Your task to perform on an android device: open app "Yahoo Mail" (install if not already installed) Image 0: 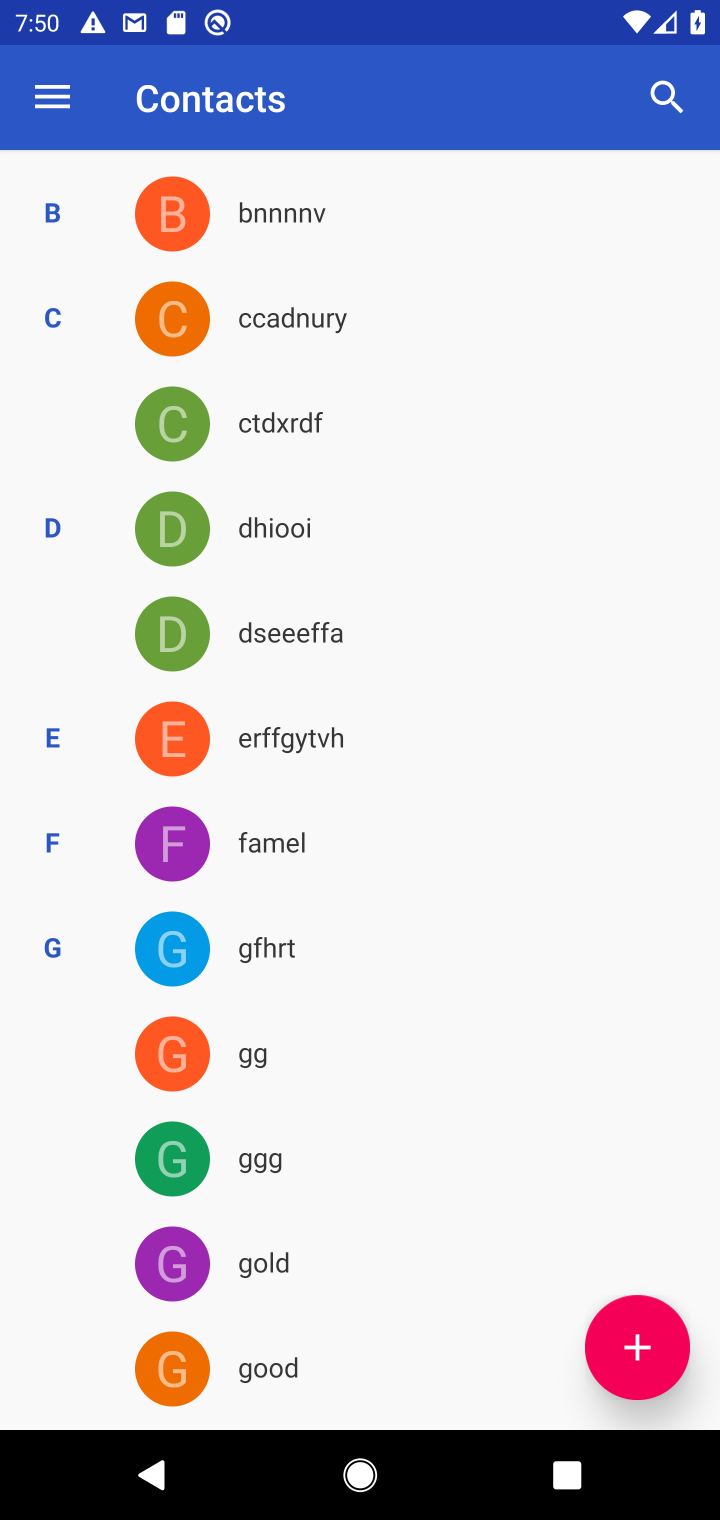
Step 0: press home button
Your task to perform on an android device: open app "Yahoo Mail" (install if not already installed) Image 1: 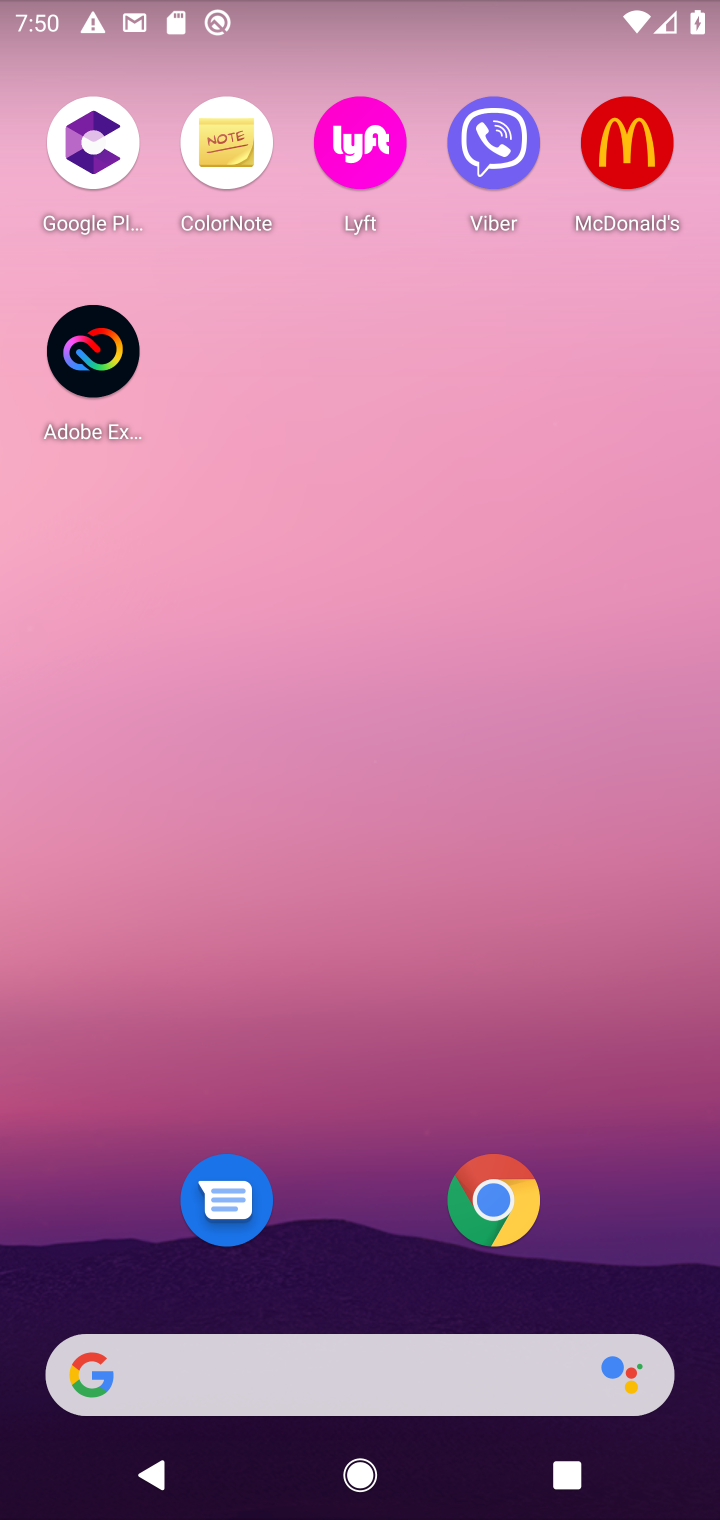
Step 1: drag from (344, 1024) to (376, 314)
Your task to perform on an android device: open app "Yahoo Mail" (install if not already installed) Image 2: 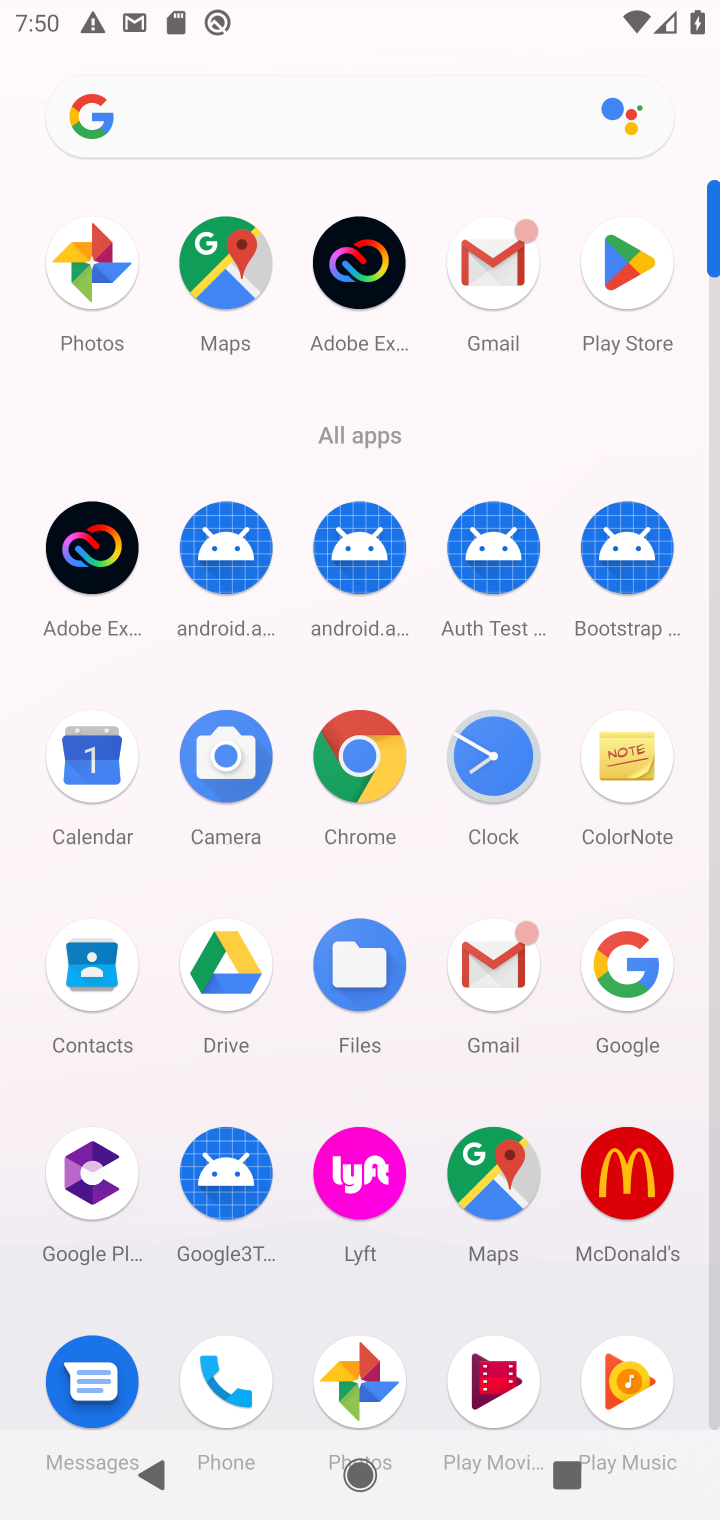
Step 2: click (623, 241)
Your task to perform on an android device: open app "Yahoo Mail" (install if not already installed) Image 3: 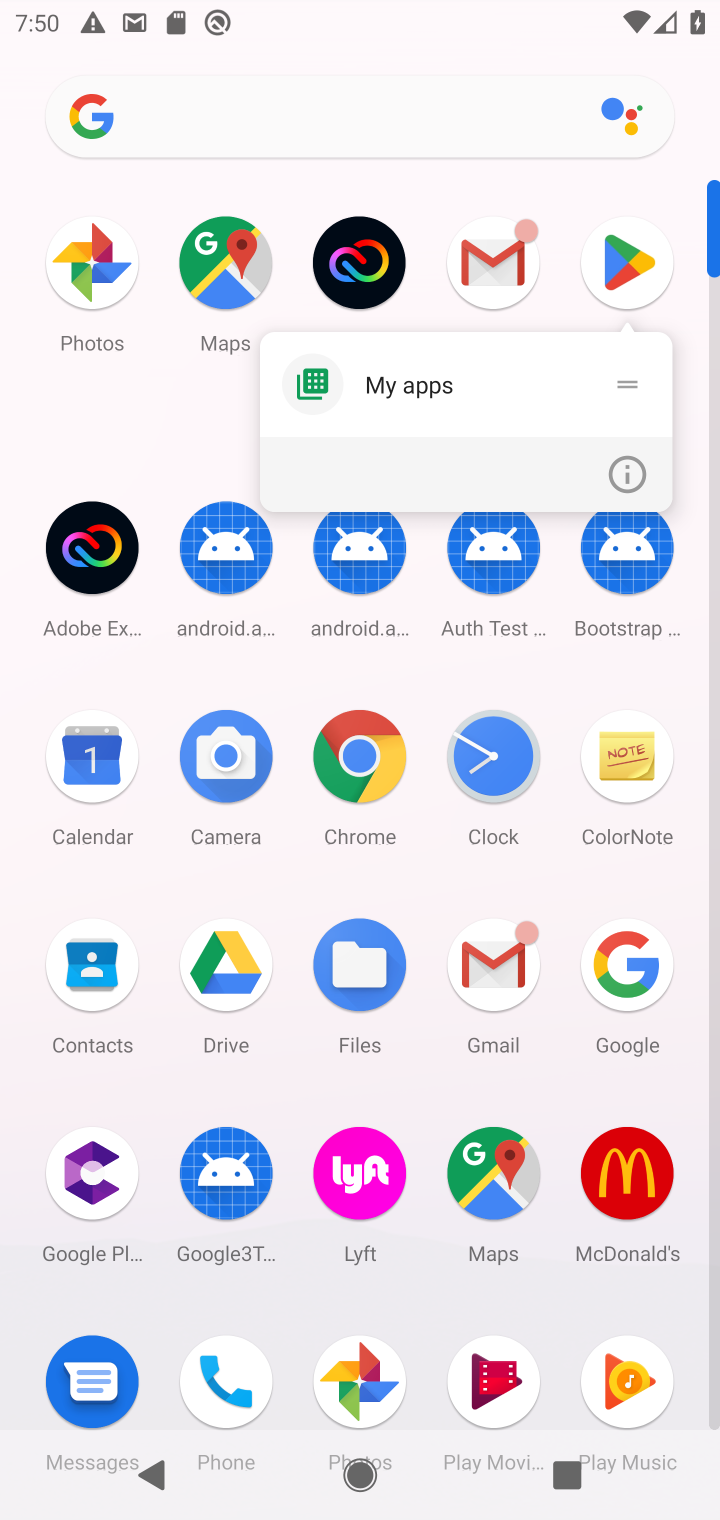
Step 3: click (639, 291)
Your task to perform on an android device: open app "Yahoo Mail" (install if not already installed) Image 4: 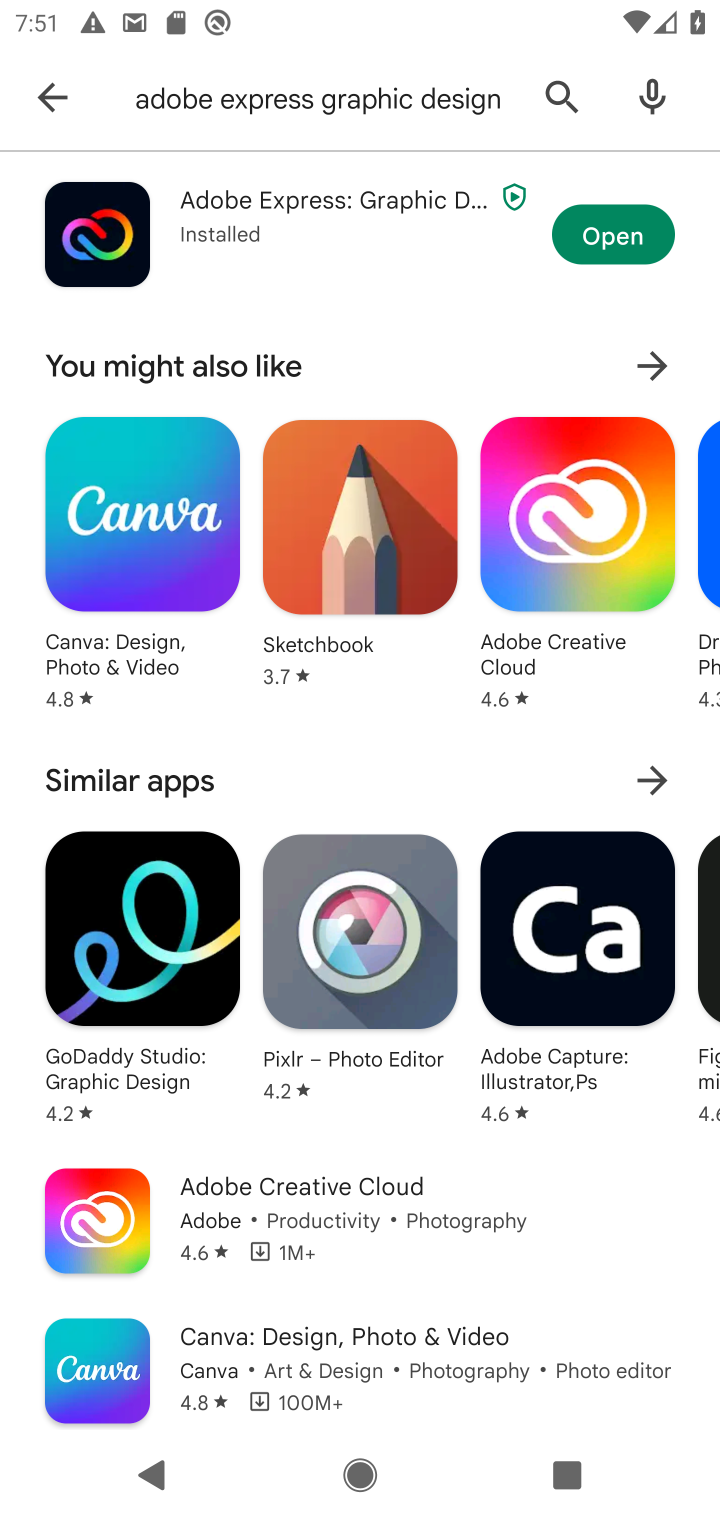
Step 4: click (44, 103)
Your task to perform on an android device: open app "Yahoo Mail" (install if not already installed) Image 5: 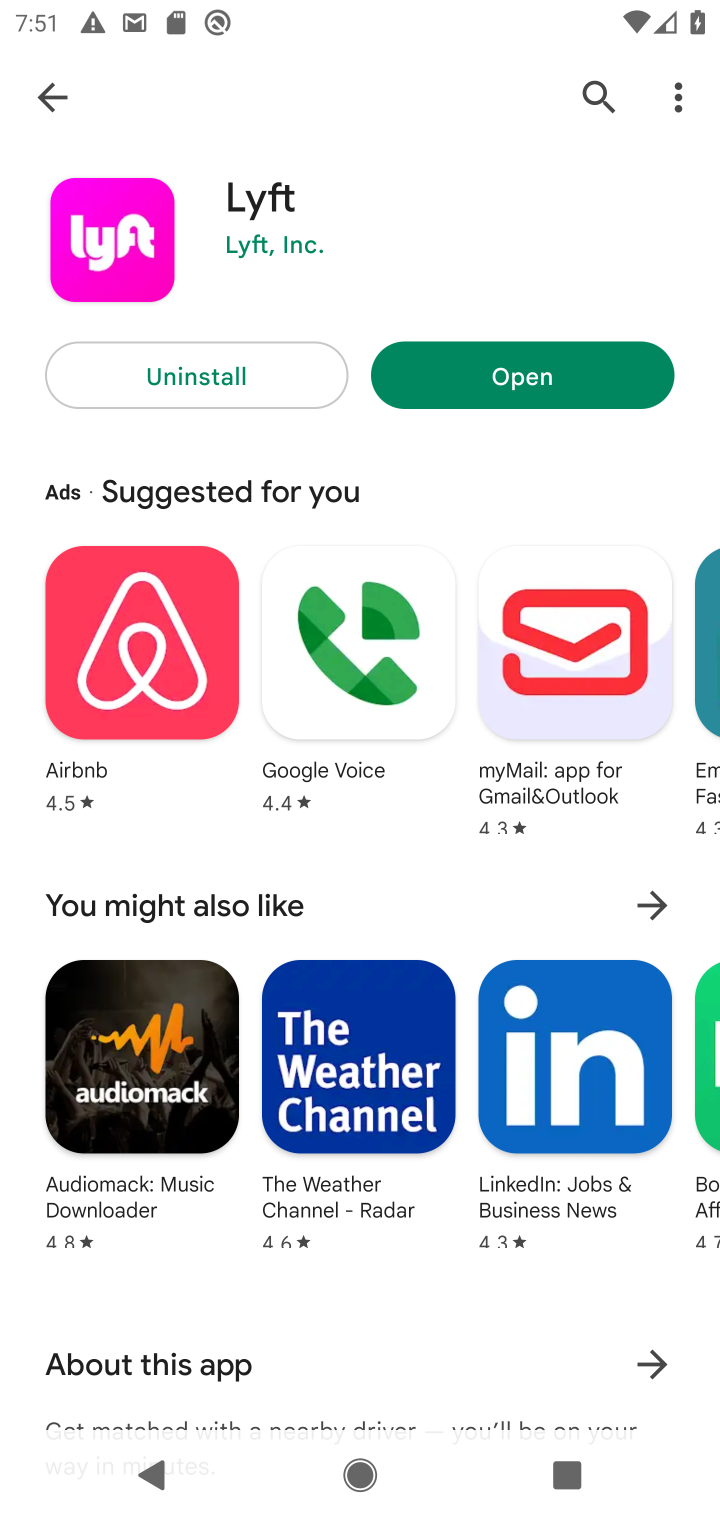
Step 5: click (57, 92)
Your task to perform on an android device: open app "Yahoo Mail" (install if not already installed) Image 6: 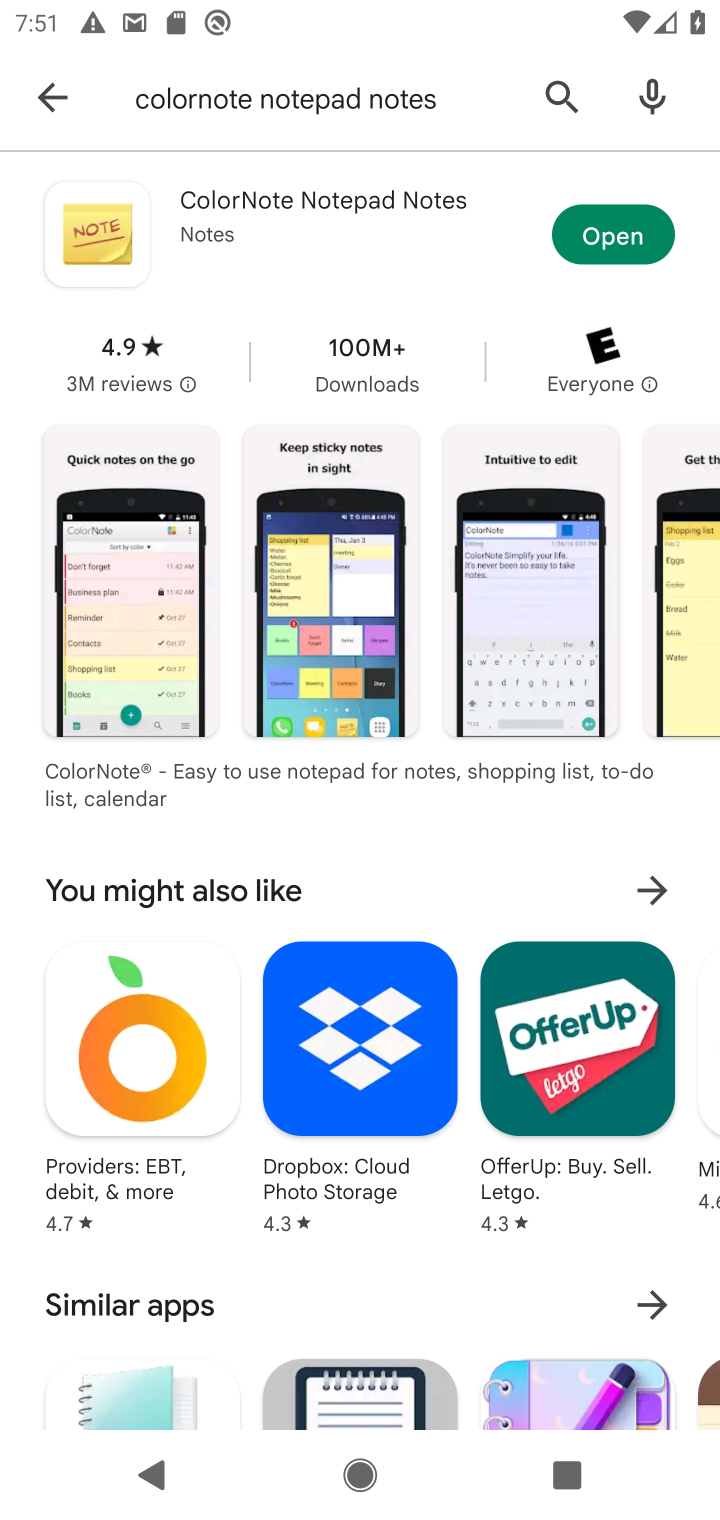
Step 6: click (555, 103)
Your task to perform on an android device: open app "Yahoo Mail" (install if not already installed) Image 7: 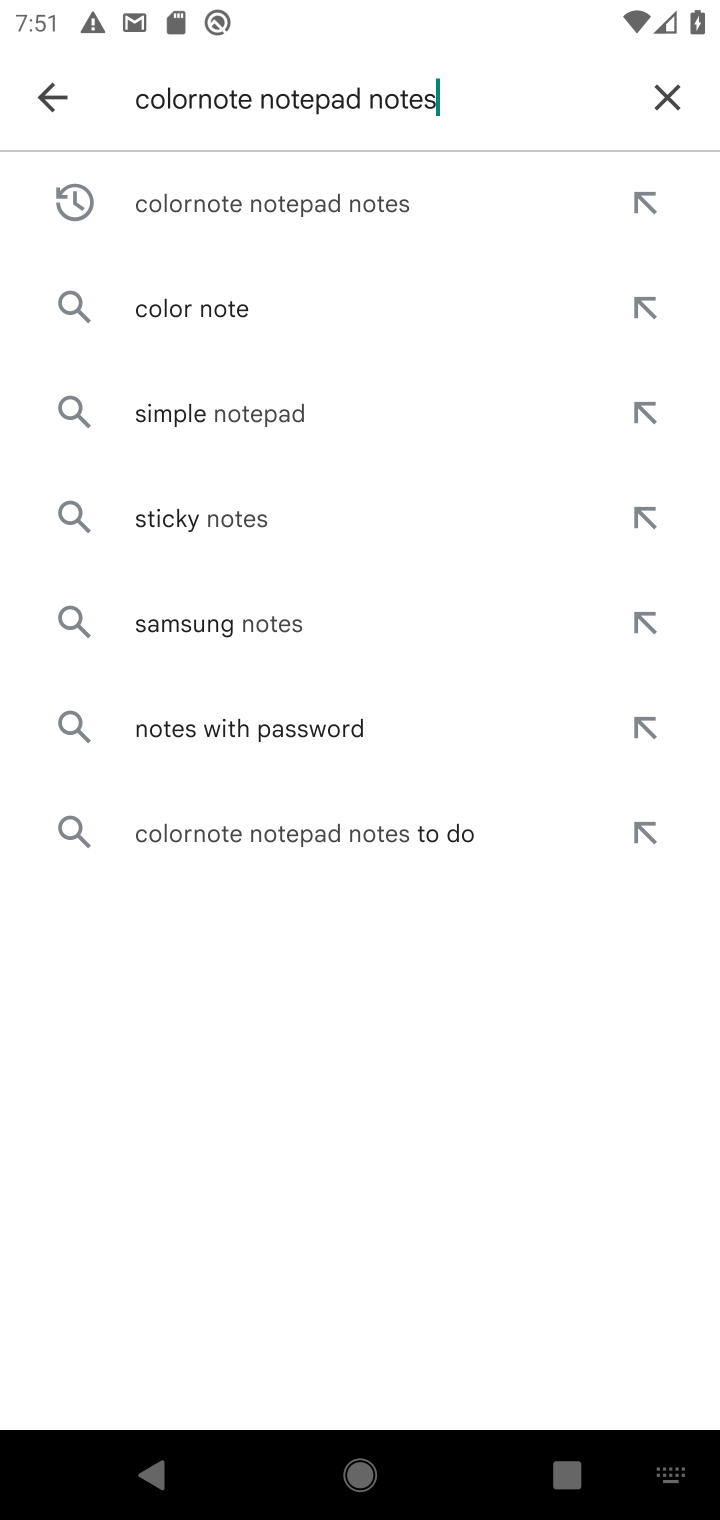
Step 7: click (655, 98)
Your task to perform on an android device: open app "Yahoo Mail" (install if not already installed) Image 8: 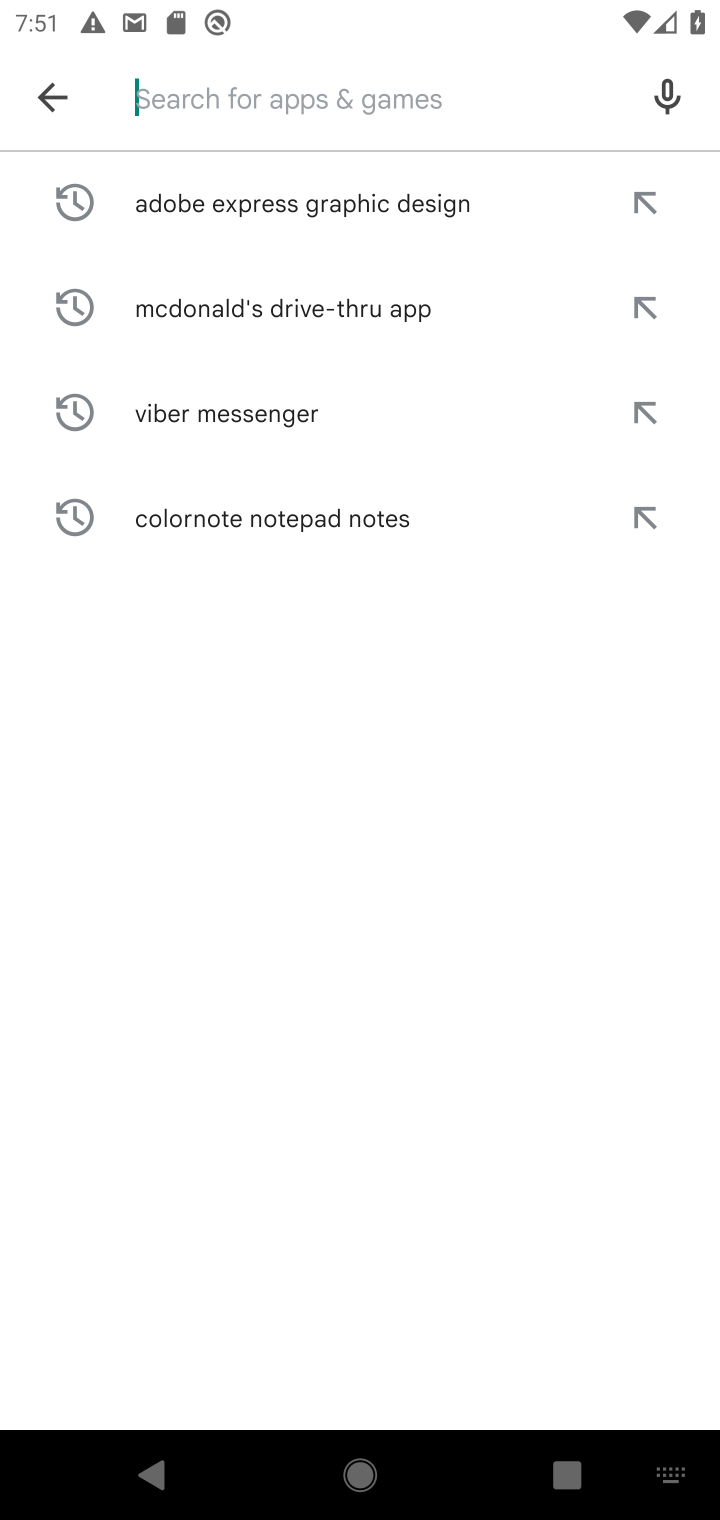
Step 8: type "Yahoo Mail"
Your task to perform on an android device: open app "Yahoo Mail" (install if not already installed) Image 9: 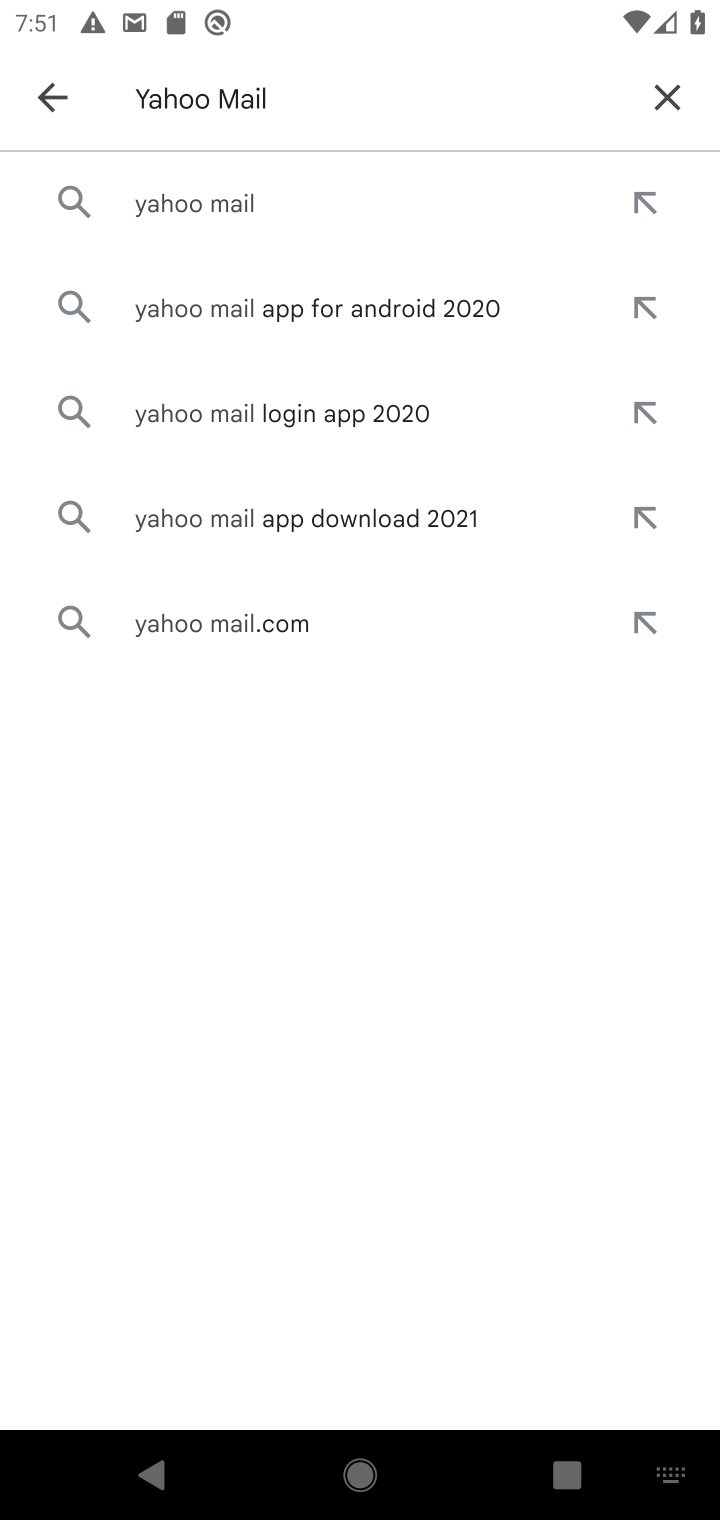
Step 9: click (168, 199)
Your task to perform on an android device: open app "Yahoo Mail" (install if not already installed) Image 10: 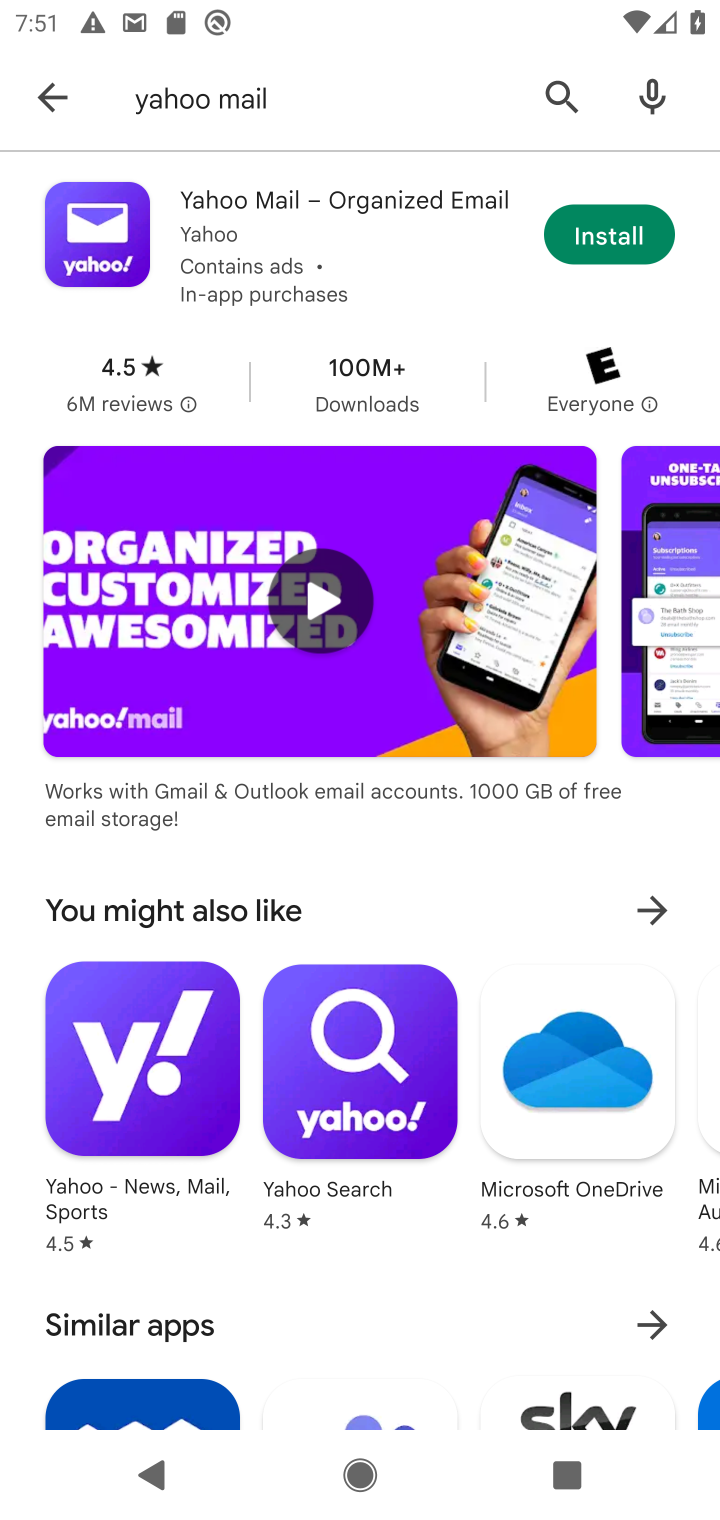
Step 10: click (638, 242)
Your task to perform on an android device: open app "Yahoo Mail" (install if not already installed) Image 11: 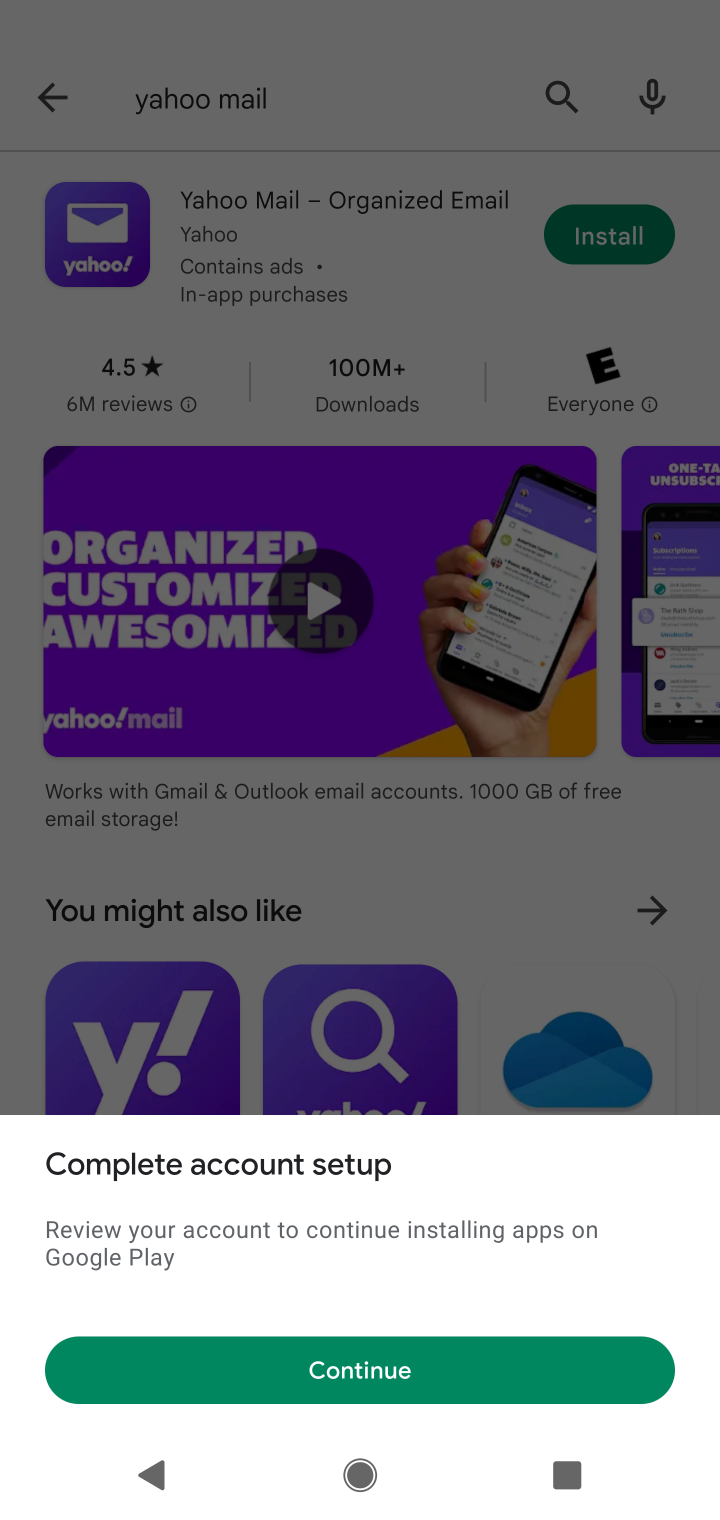
Step 11: click (428, 1373)
Your task to perform on an android device: open app "Yahoo Mail" (install if not already installed) Image 12: 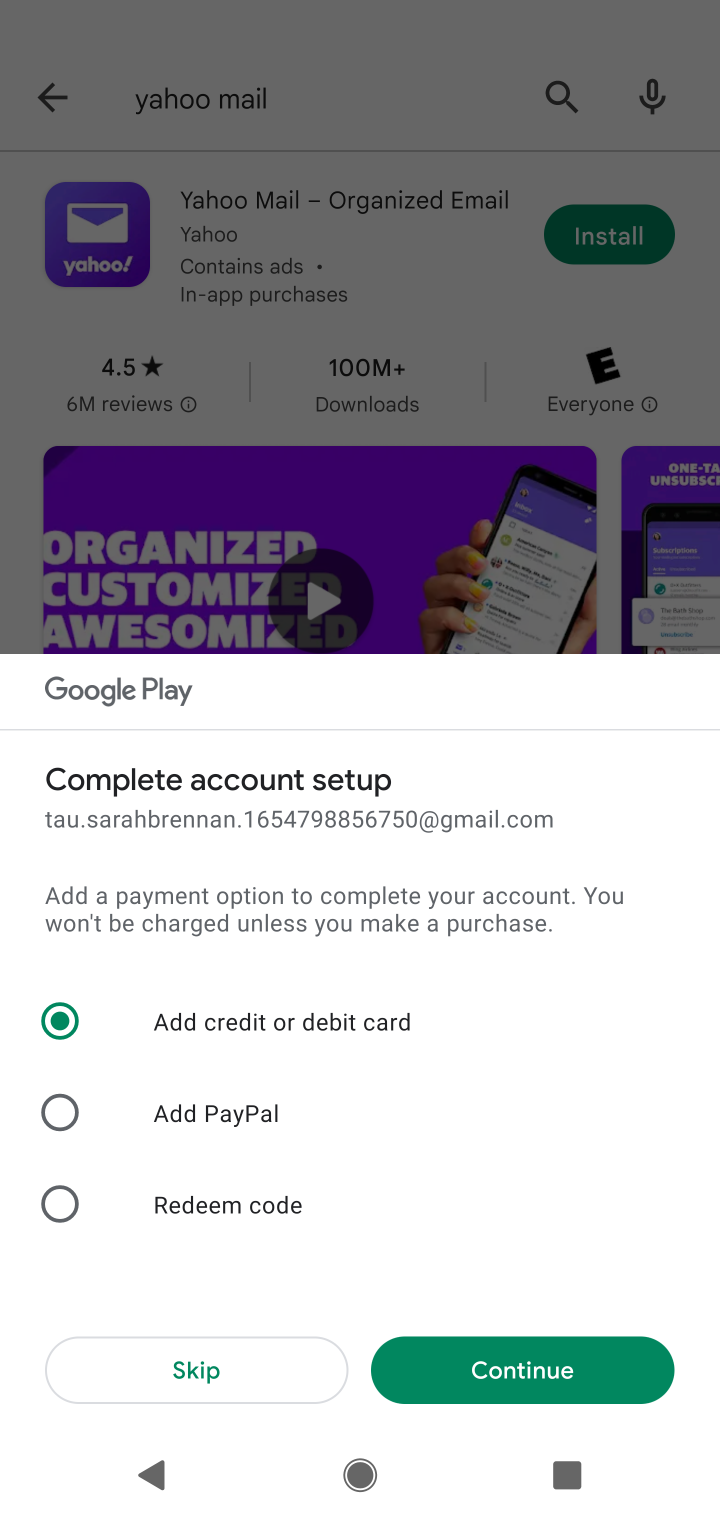
Step 12: click (196, 1366)
Your task to perform on an android device: open app "Yahoo Mail" (install if not already installed) Image 13: 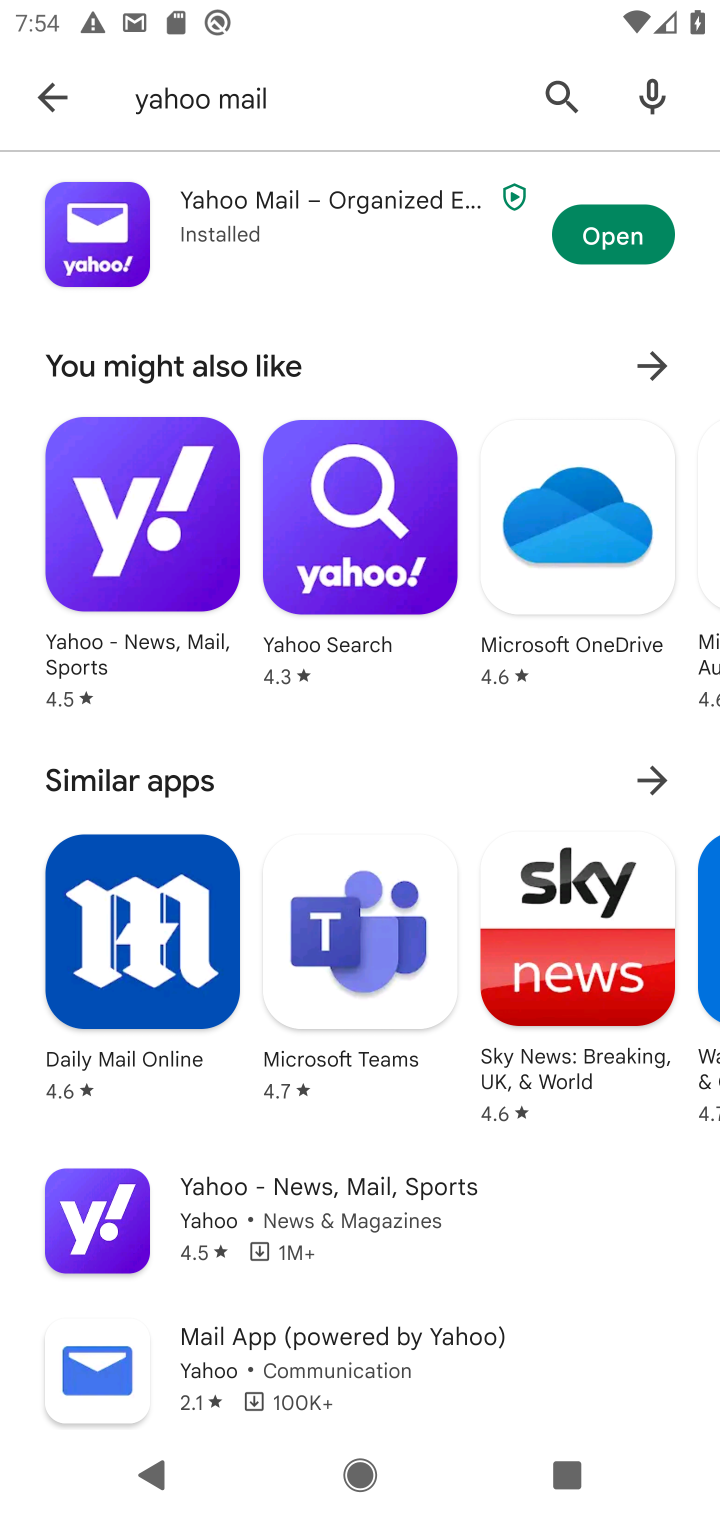
Step 13: click (607, 242)
Your task to perform on an android device: open app "Yahoo Mail" (install if not already installed) Image 14: 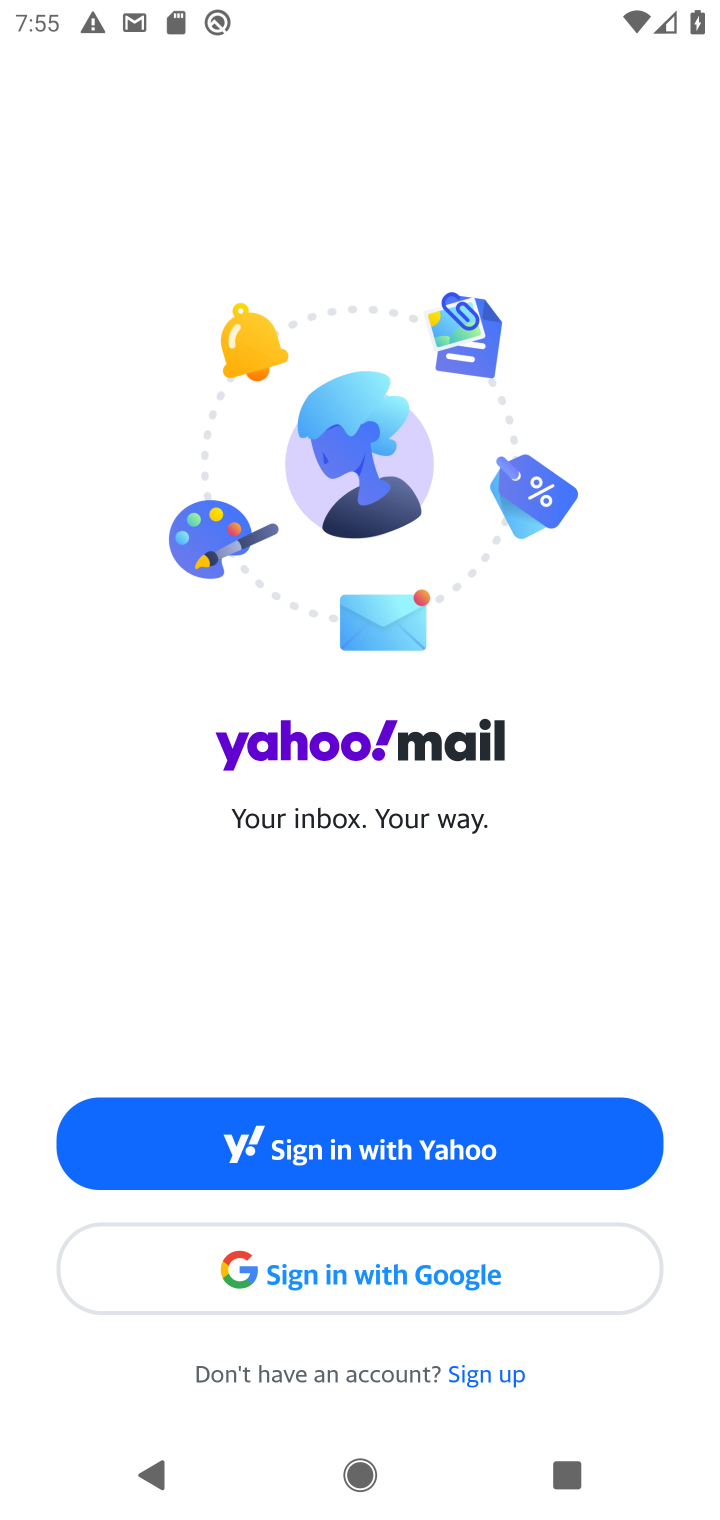
Step 14: task complete